Your task to perform on an android device: Go to Google maps Image 0: 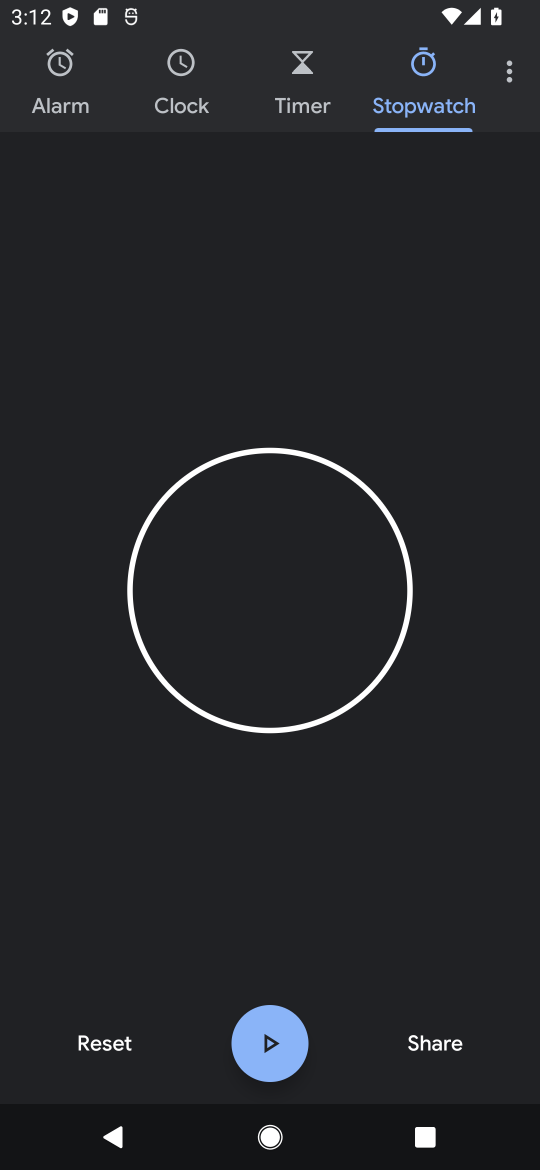
Step 0: press home button
Your task to perform on an android device: Go to Google maps Image 1: 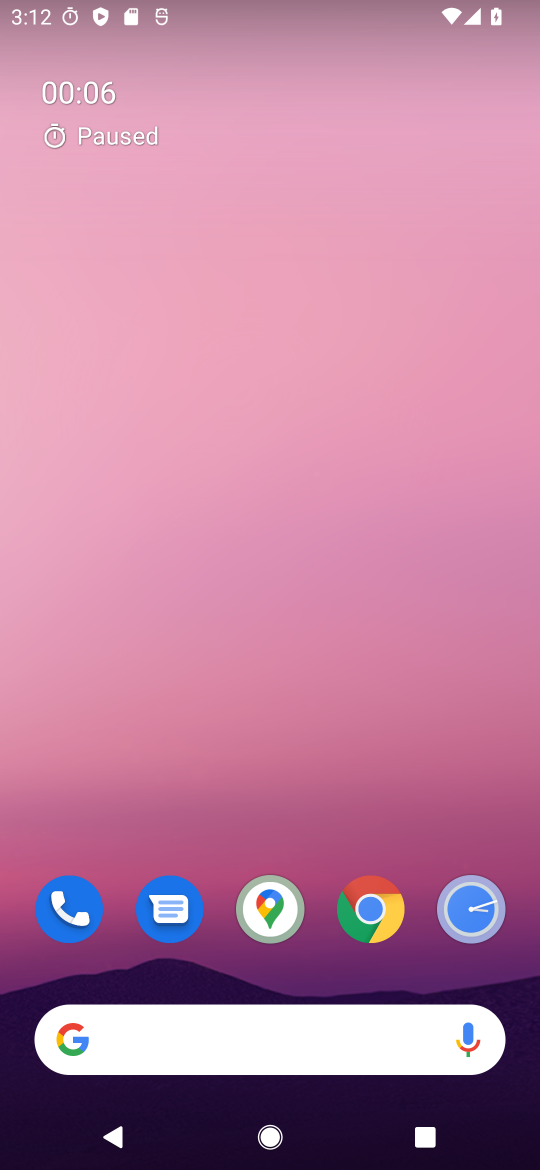
Step 1: click (266, 914)
Your task to perform on an android device: Go to Google maps Image 2: 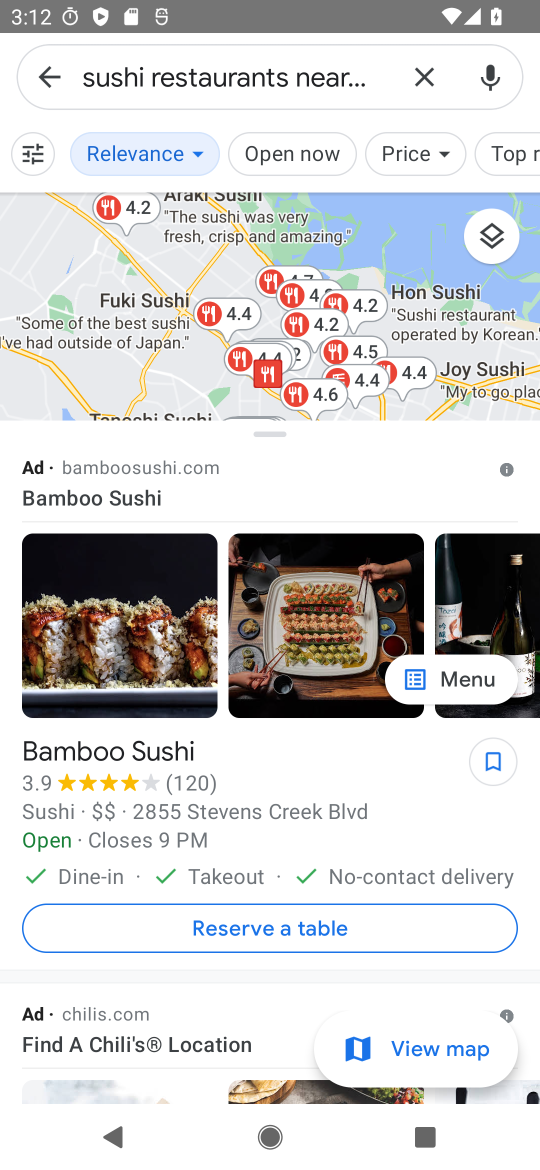
Step 2: task complete